Your task to perform on an android device: Go to notification settings Image 0: 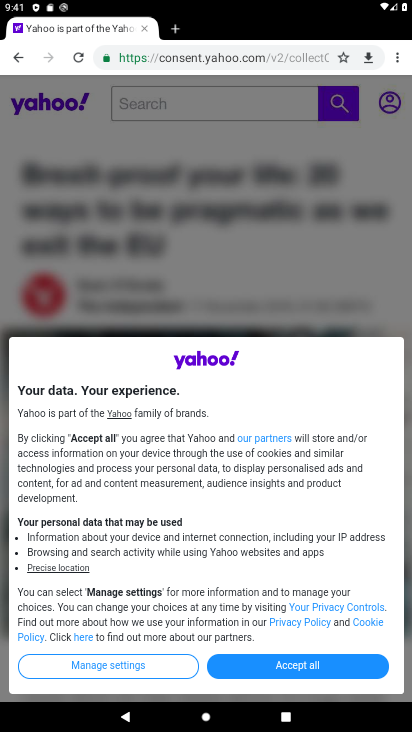
Step 0: press home button
Your task to perform on an android device: Go to notification settings Image 1: 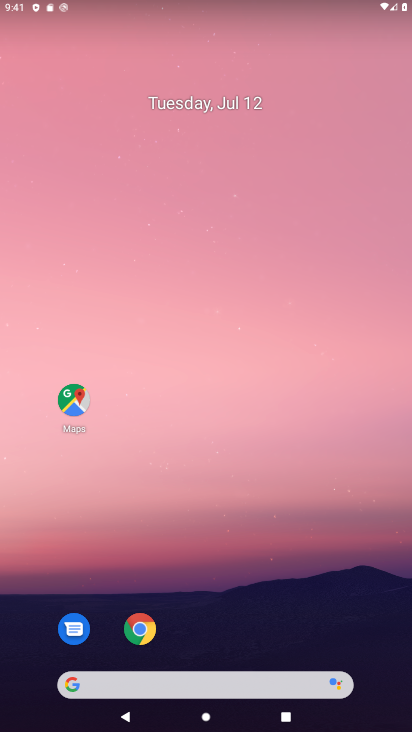
Step 1: drag from (184, 680) to (290, 112)
Your task to perform on an android device: Go to notification settings Image 2: 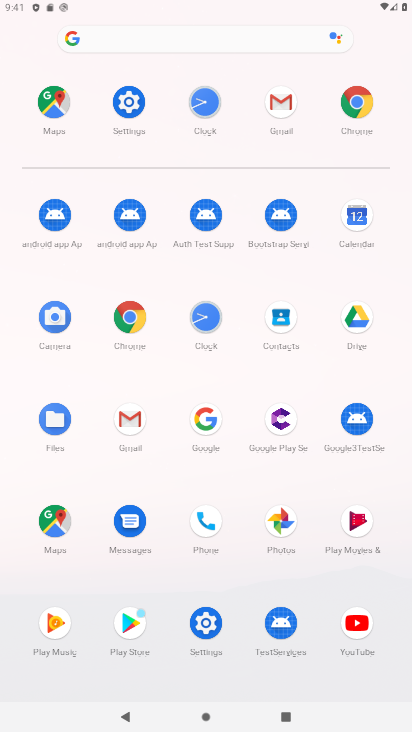
Step 2: click (133, 101)
Your task to perform on an android device: Go to notification settings Image 3: 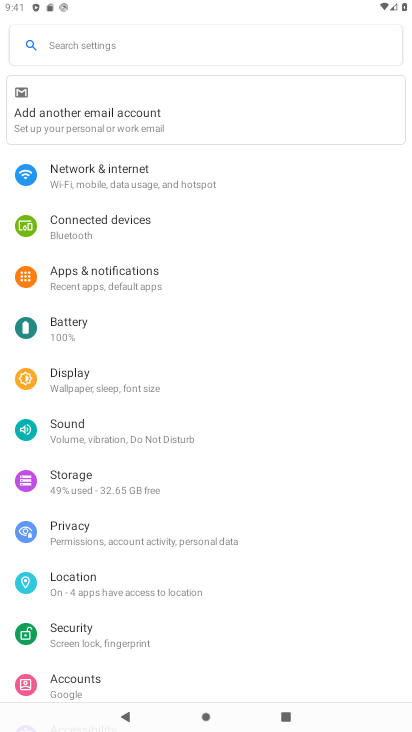
Step 3: click (103, 260)
Your task to perform on an android device: Go to notification settings Image 4: 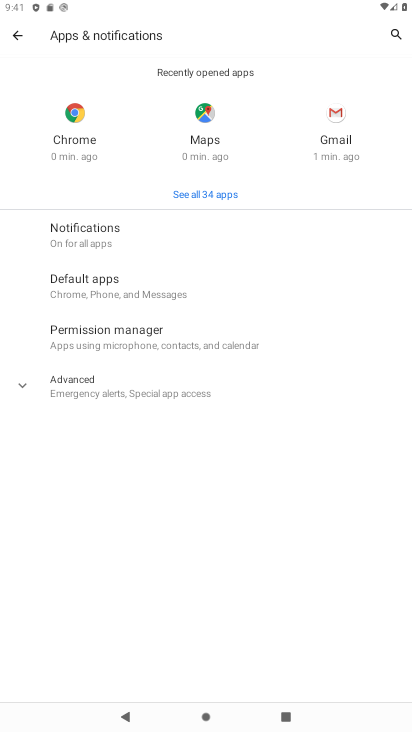
Step 4: click (126, 239)
Your task to perform on an android device: Go to notification settings Image 5: 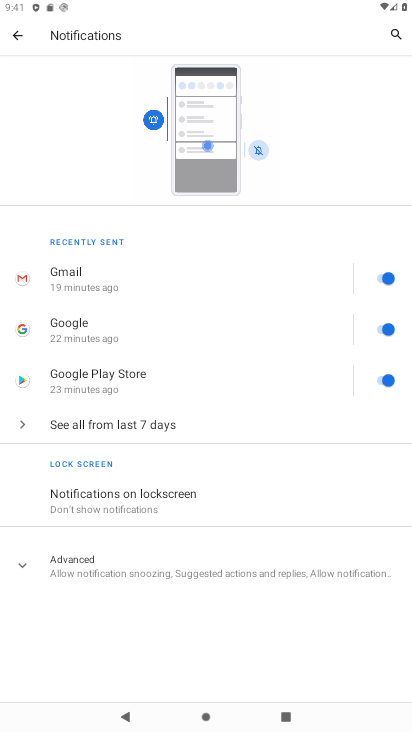
Step 5: task complete